Your task to perform on an android device: Clear the shopping cart on ebay. Add "macbook" to the cart on ebay, then select checkout. Image 0: 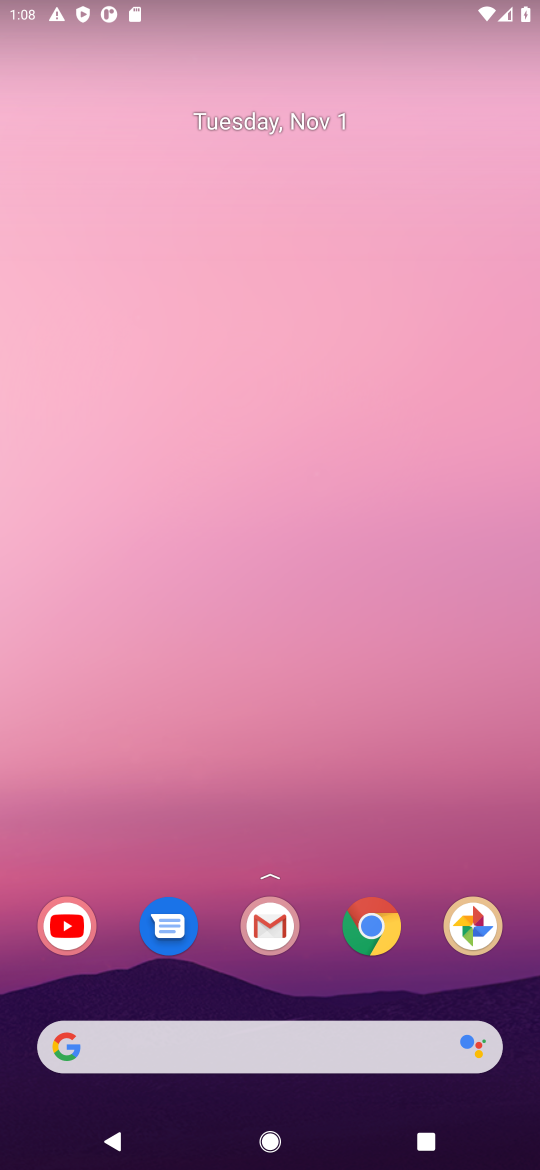
Step 0: click (375, 938)
Your task to perform on an android device: Clear the shopping cart on ebay. Add "macbook" to the cart on ebay, then select checkout. Image 1: 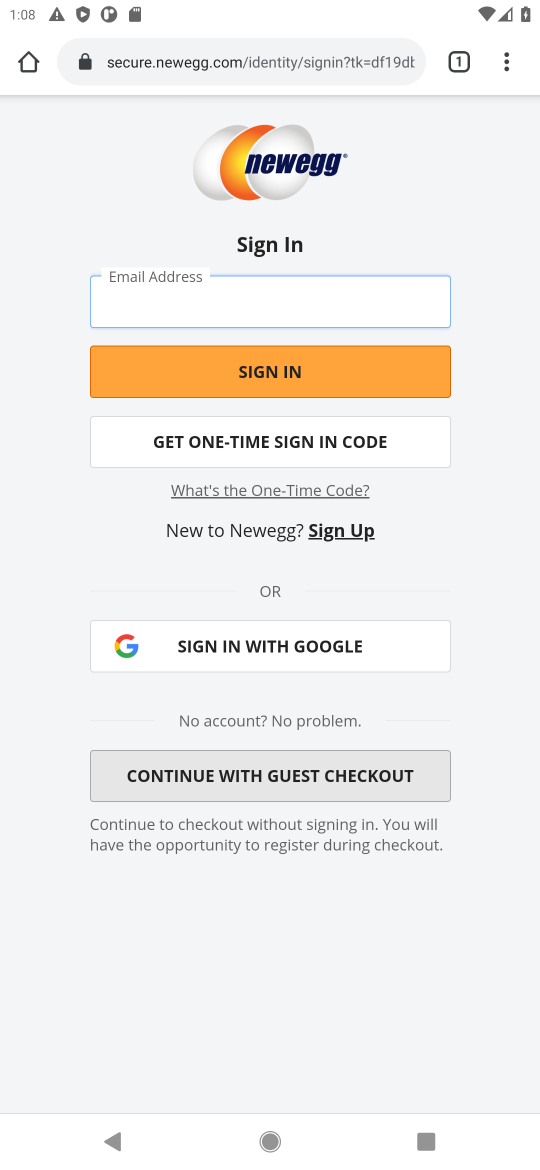
Step 1: click (317, 73)
Your task to perform on an android device: Clear the shopping cart on ebay. Add "macbook" to the cart on ebay, then select checkout. Image 2: 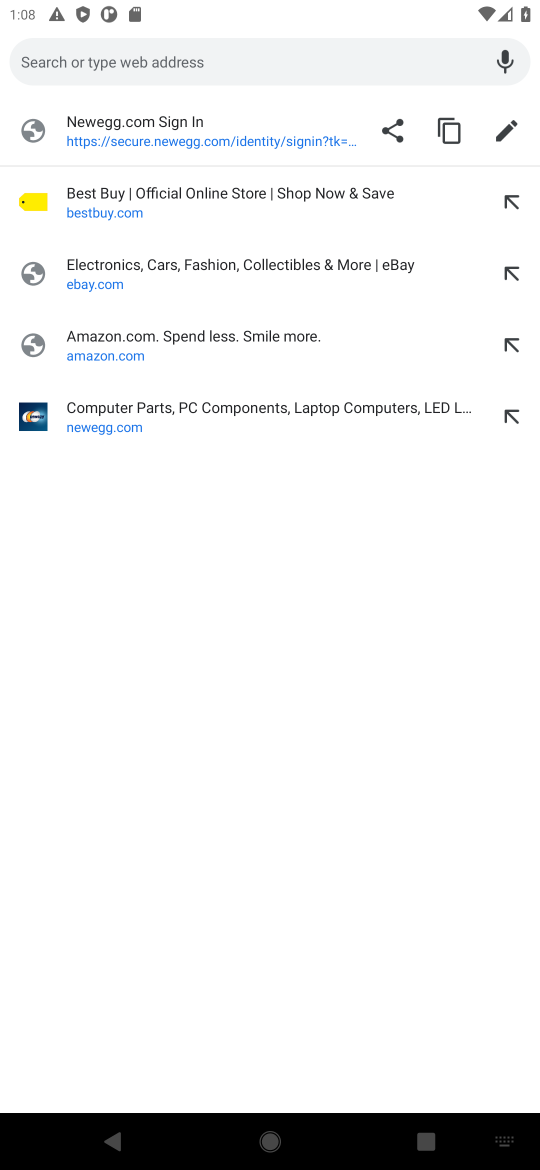
Step 2: type "ebay"
Your task to perform on an android device: Clear the shopping cart on ebay. Add "macbook" to the cart on ebay, then select checkout. Image 3: 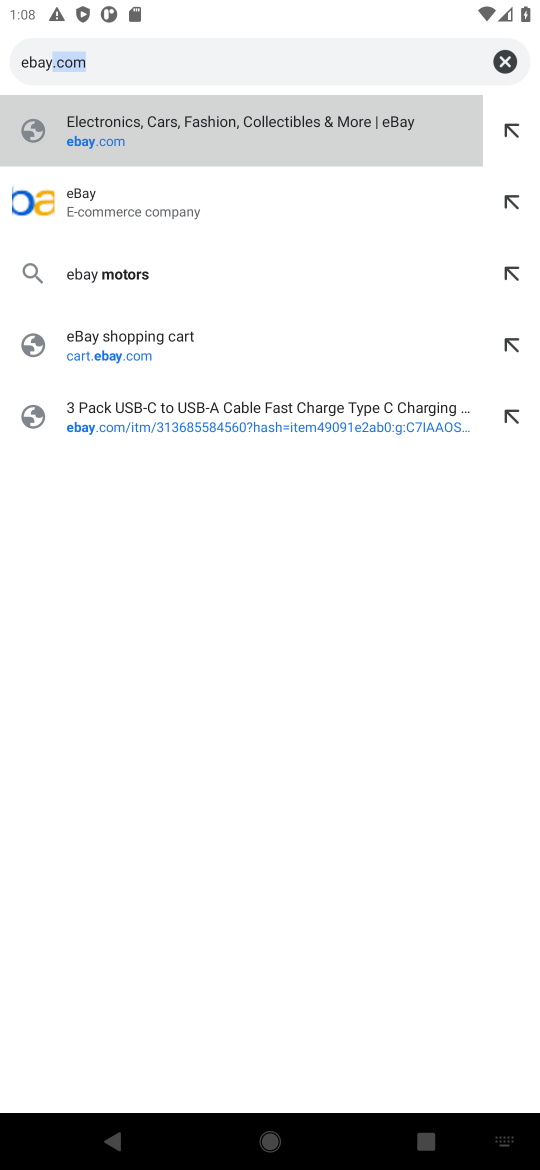
Step 3: press enter
Your task to perform on an android device: Clear the shopping cart on ebay. Add "macbook" to the cart on ebay, then select checkout. Image 4: 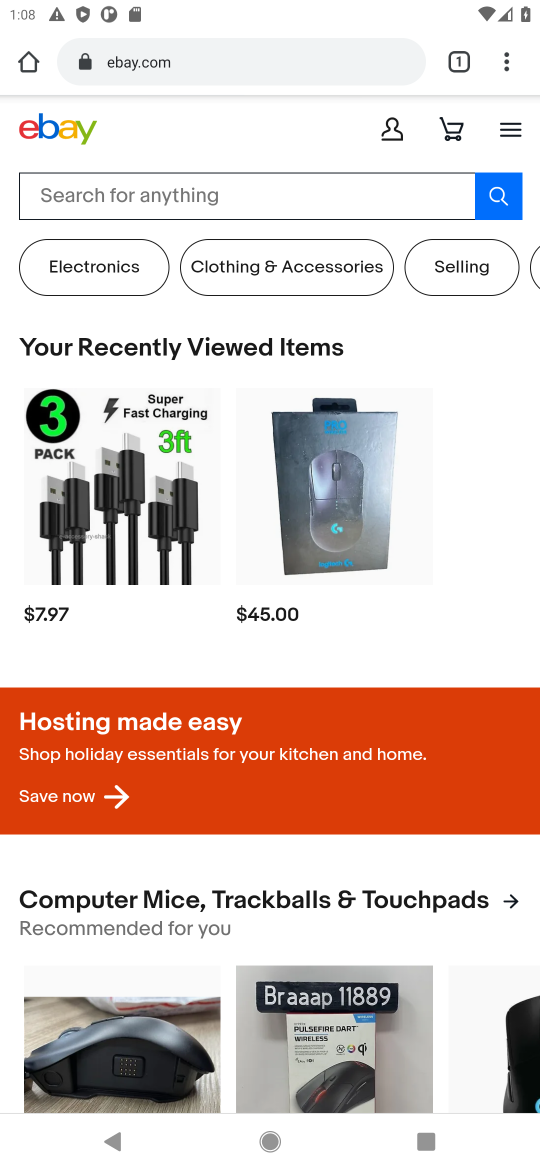
Step 4: click (455, 130)
Your task to perform on an android device: Clear the shopping cart on ebay. Add "macbook" to the cart on ebay, then select checkout. Image 5: 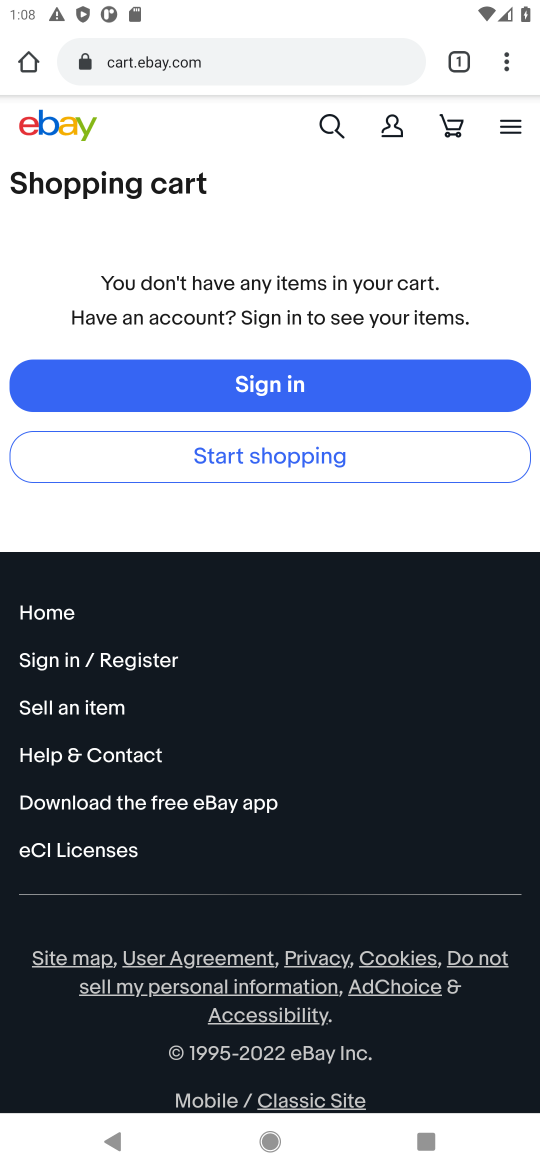
Step 5: click (333, 121)
Your task to perform on an android device: Clear the shopping cart on ebay. Add "macbook" to the cart on ebay, then select checkout. Image 6: 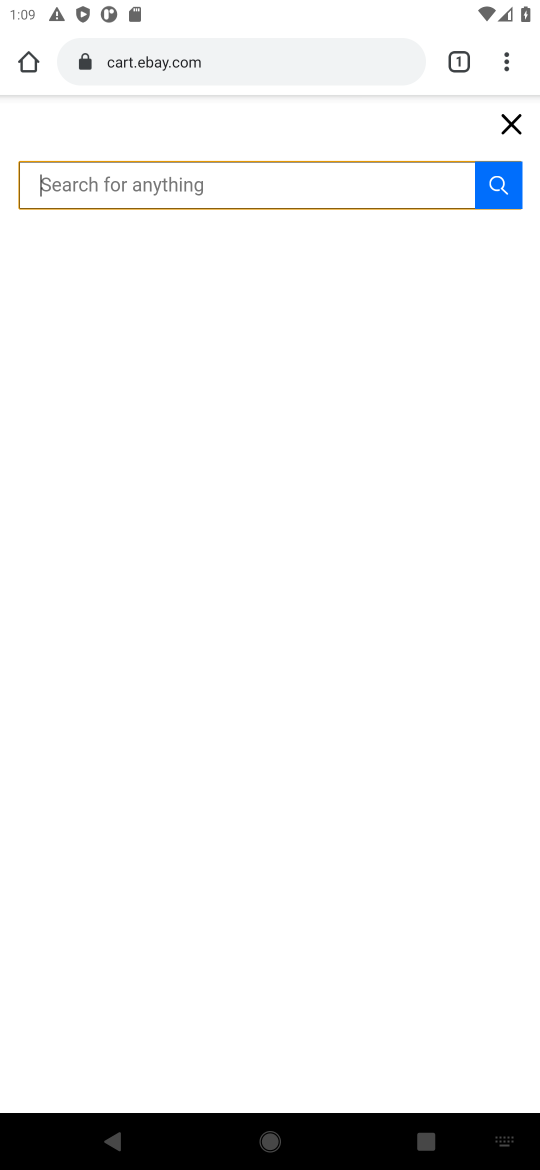
Step 6: type "macbook"
Your task to perform on an android device: Clear the shopping cart on ebay. Add "macbook" to the cart on ebay, then select checkout. Image 7: 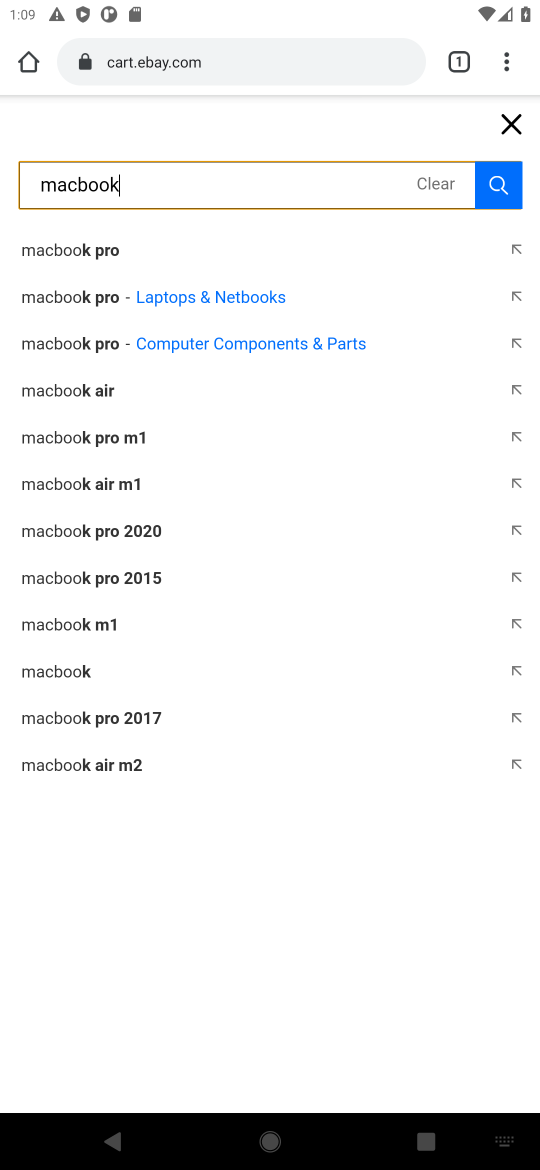
Step 7: click (499, 196)
Your task to perform on an android device: Clear the shopping cart on ebay. Add "macbook" to the cart on ebay, then select checkout. Image 8: 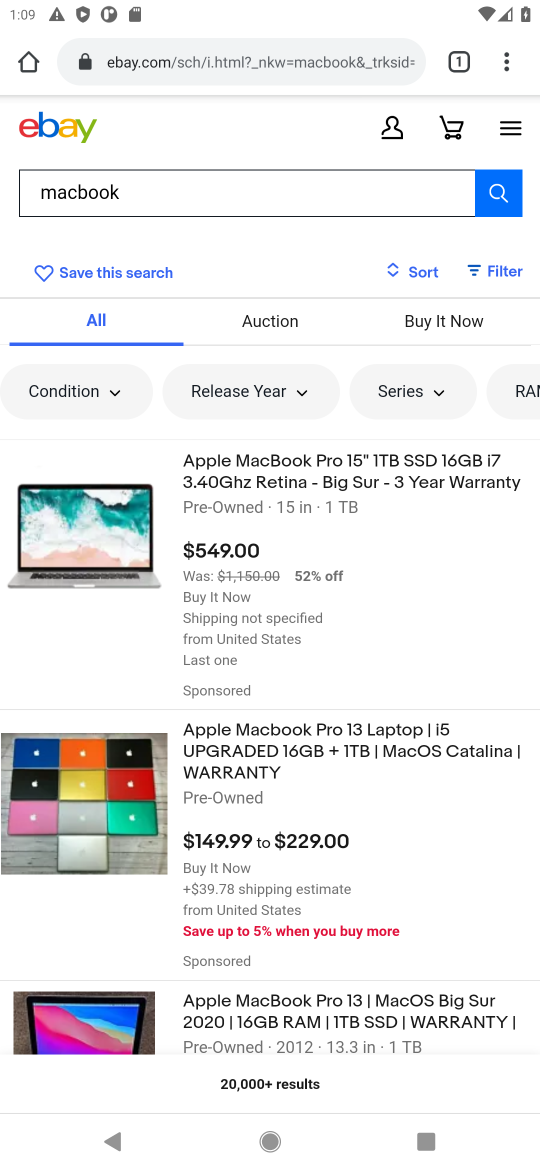
Step 8: click (320, 469)
Your task to perform on an android device: Clear the shopping cart on ebay. Add "macbook" to the cart on ebay, then select checkout. Image 9: 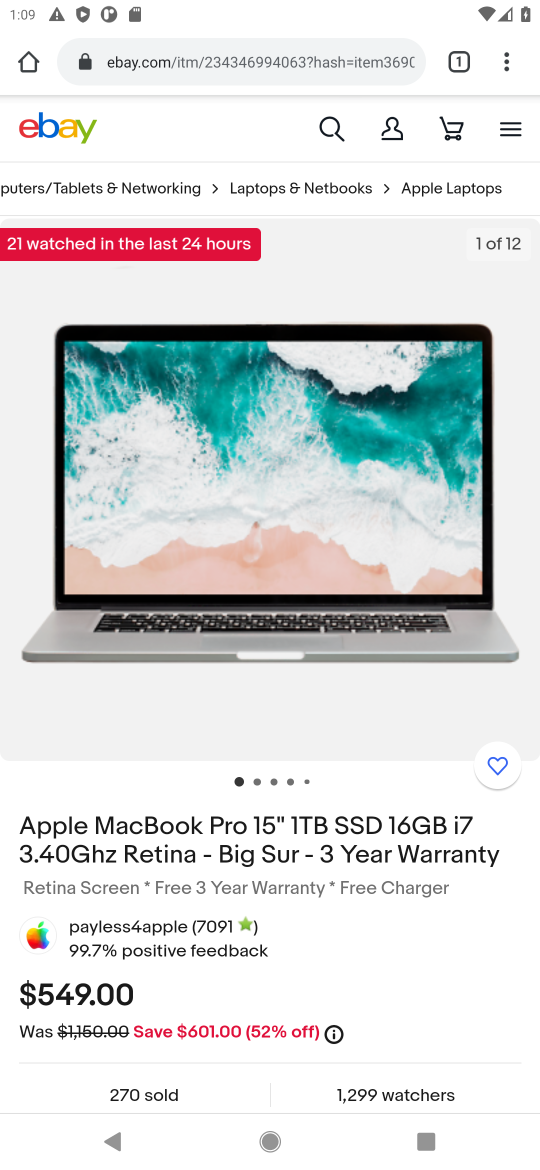
Step 9: drag from (431, 966) to (394, 442)
Your task to perform on an android device: Clear the shopping cart on ebay. Add "macbook" to the cart on ebay, then select checkout. Image 10: 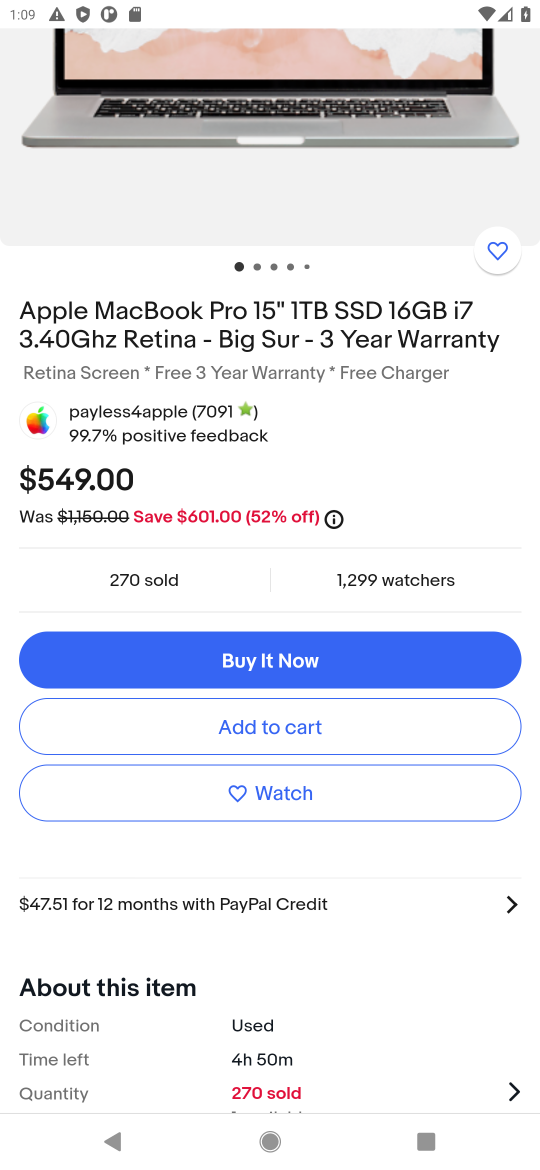
Step 10: click (287, 730)
Your task to perform on an android device: Clear the shopping cart on ebay. Add "macbook" to the cart on ebay, then select checkout. Image 11: 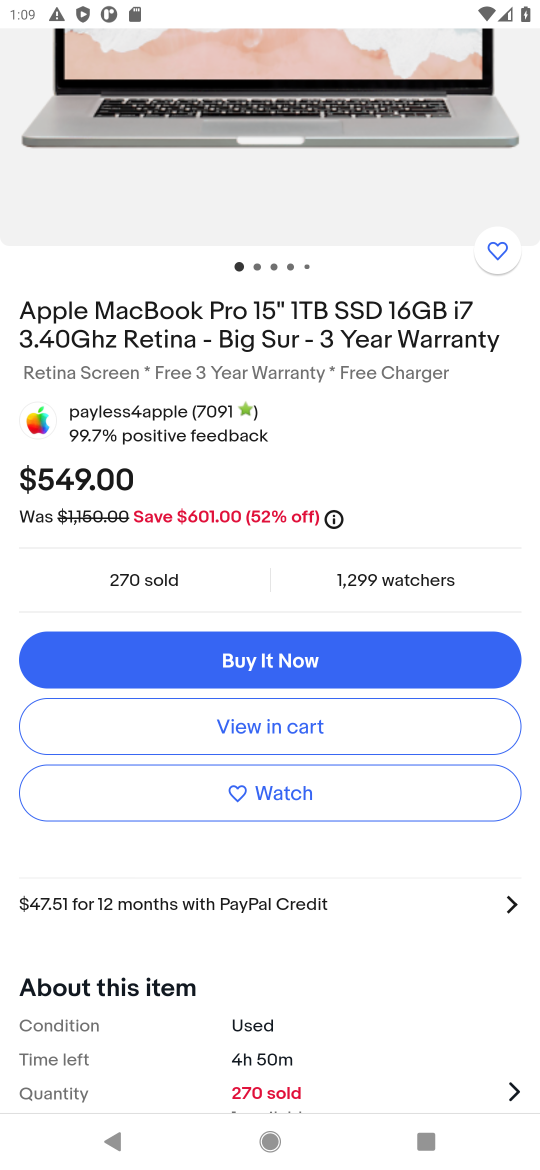
Step 11: click (287, 730)
Your task to perform on an android device: Clear the shopping cart on ebay. Add "macbook" to the cart on ebay, then select checkout. Image 12: 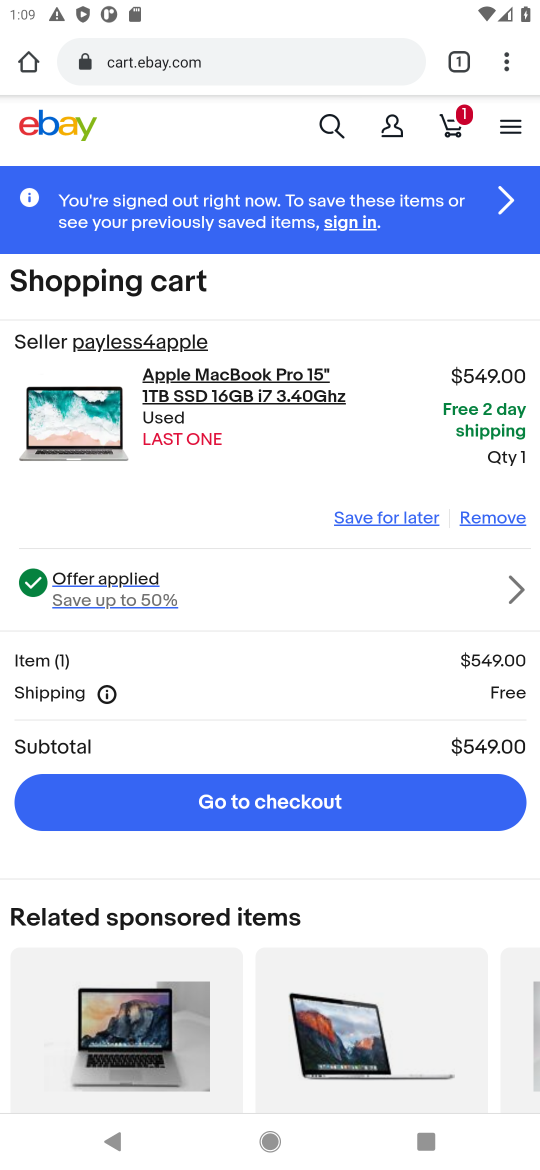
Step 12: click (269, 803)
Your task to perform on an android device: Clear the shopping cart on ebay. Add "macbook" to the cart on ebay, then select checkout. Image 13: 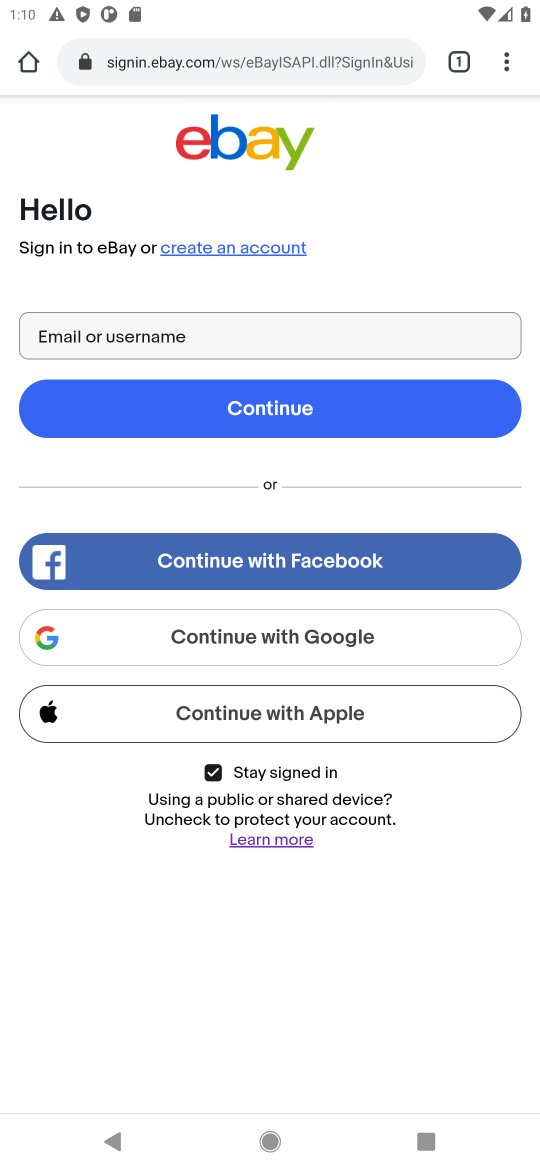
Step 13: task complete